Your task to perform on an android device: open a new tab in the chrome app Image 0: 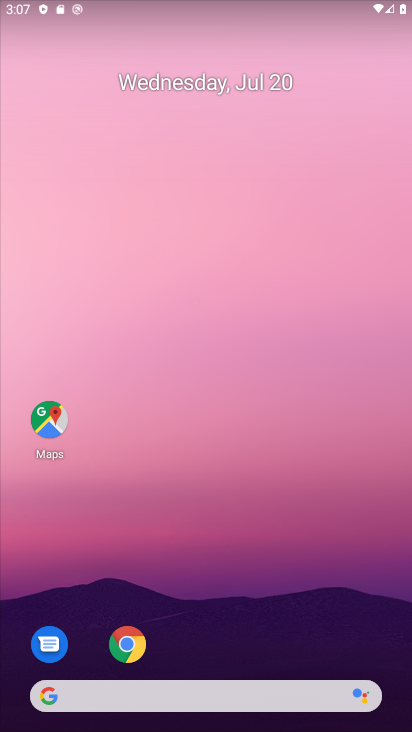
Step 0: click (56, 434)
Your task to perform on an android device: open a new tab in the chrome app Image 1: 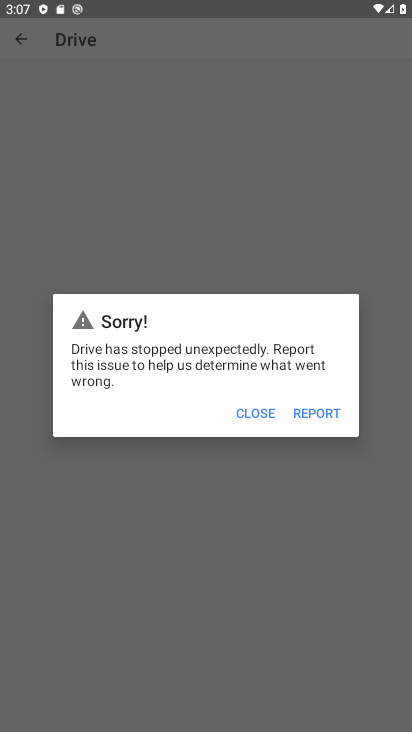
Step 1: click (239, 405)
Your task to perform on an android device: open a new tab in the chrome app Image 2: 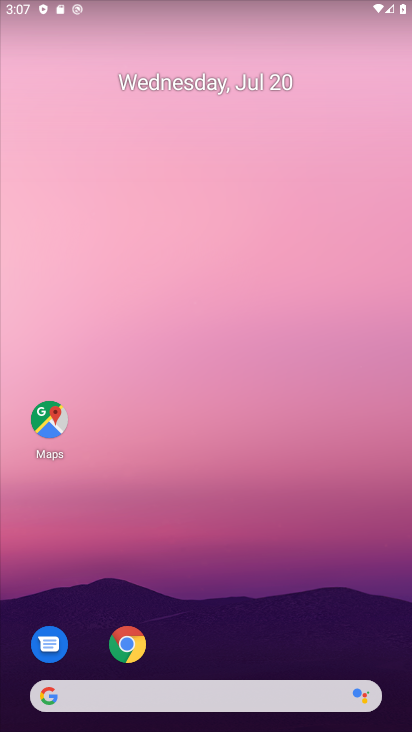
Step 2: click (137, 642)
Your task to perform on an android device: open a new tab in the chrome app Image 3: 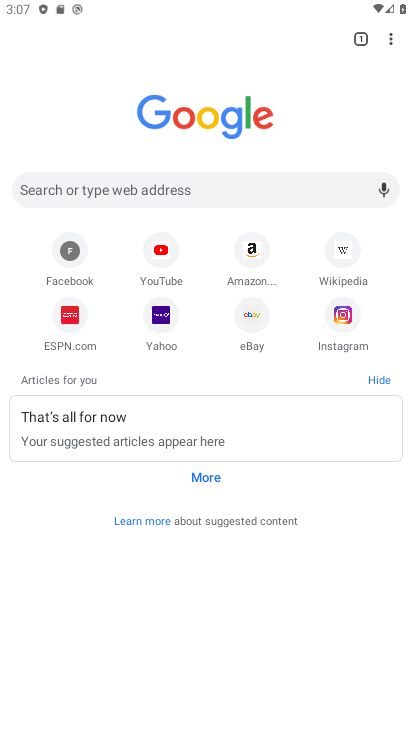
Step 3: click (207, 191)
Your task to perform on an android device: open a new tab in the chrome app Image 4: 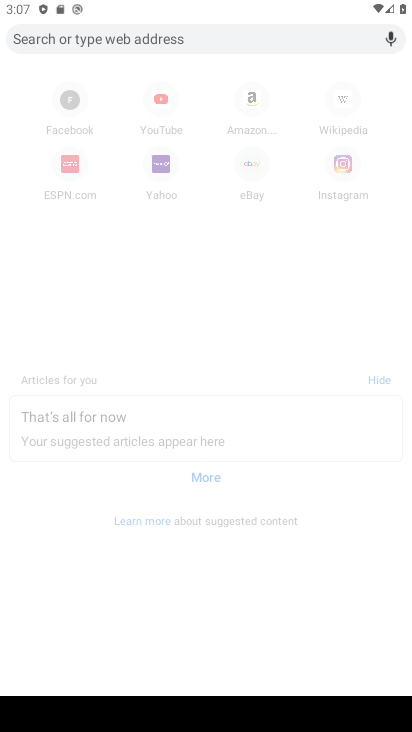
Step 4: click (206, 202)
Your task to perform on an android device: open a new tab in the chrome app Image 5: 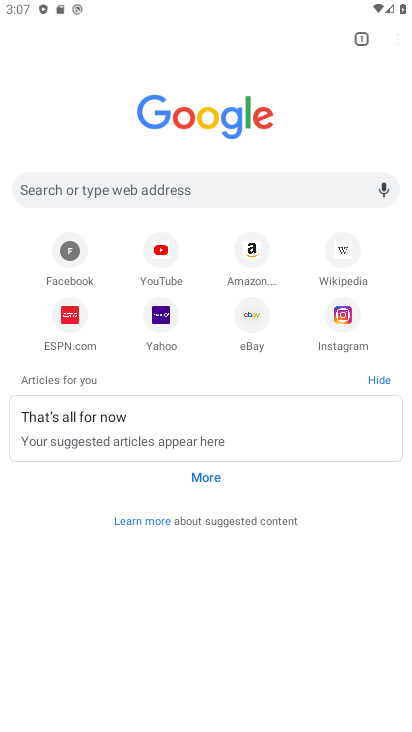
Step 5: click (170, 56)
Your task to perform on an android device: open a new tab in the chrome app Image 6: 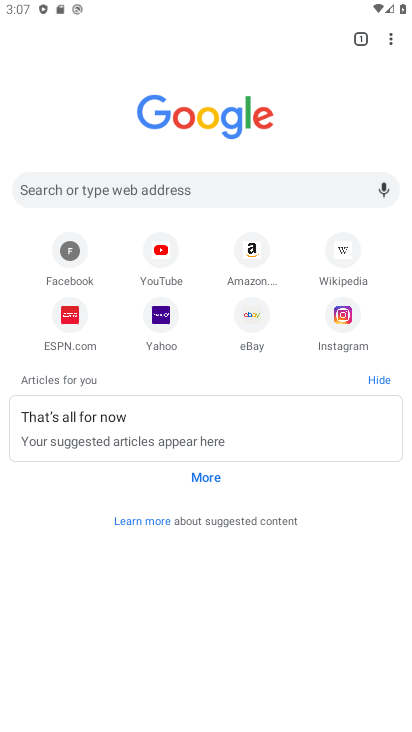
Step 6: click (167, 49)
Your task to perform on an android device: open a new tab in the chrome app Image 7: 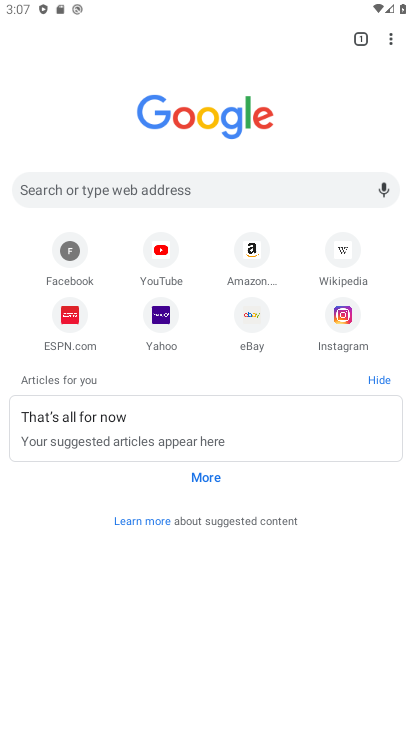
Step 7: click (392, 33)
Your task to perform on an android device: open a new tab in the chrome app Image 8: 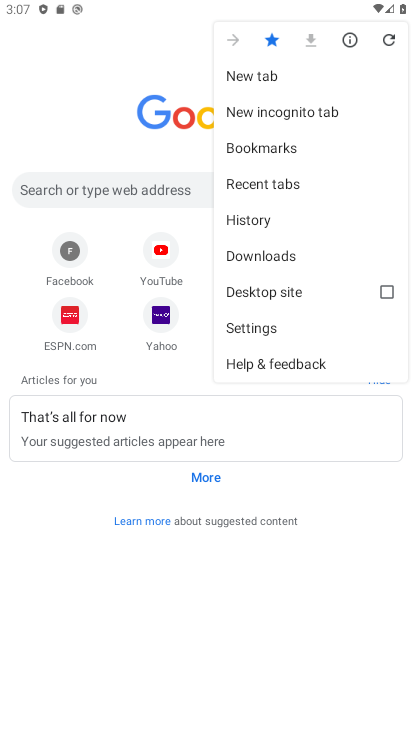
Step 8: click (274, 77)
Your task to perform on an android device: open a new tab in the chrome app Image 9: 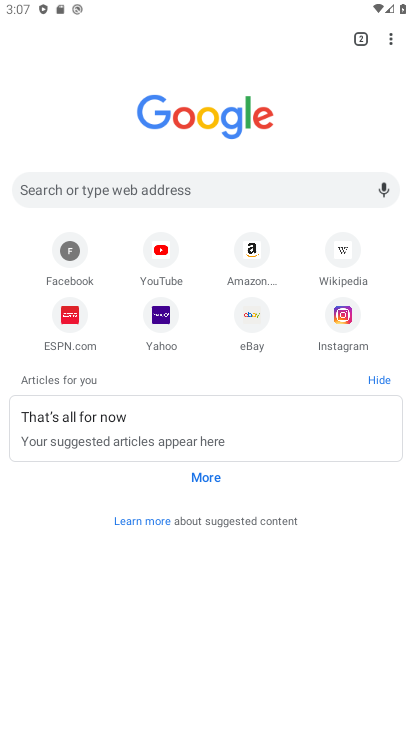
Step 9: task complete